Your task to perform on an android device: Clear the shopping cart on bestbuy.com. Add razer blade to the cart on bestbuy.com, then select checkout. Image 0: 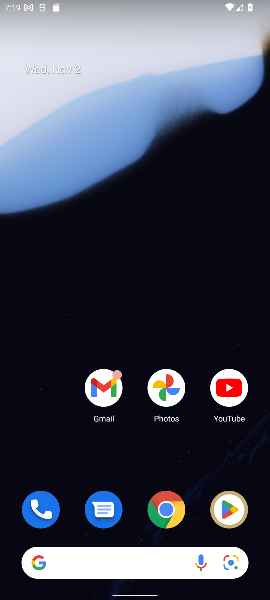
Step 0: click (123, 557)
Your task to perform on an android device: Clear the shopping cart on bestbuy.com. Add razer blade to the cart on bestbuy.com, then select checkout. Image 1: 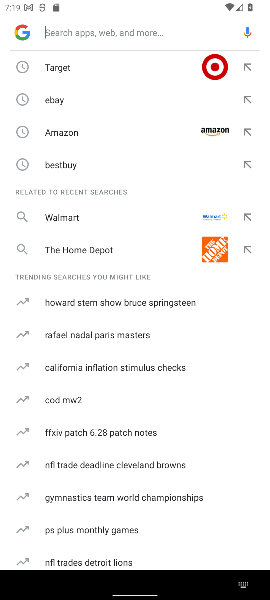
Step 1: type "bestbuy.com"
Your task to perform on an android device: Clear the shopping cart on bestbuy.com. Add razer blade to the cart on bestbuy.com, then select checkout. Image 2: 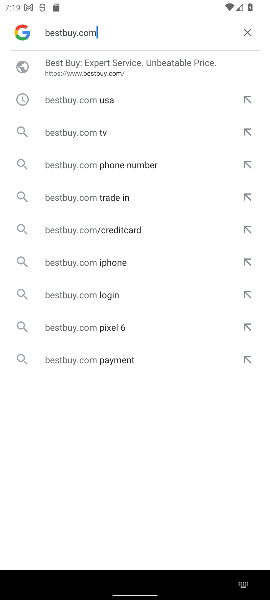
Step 2: click (79, 59)
Your task to perform on an android device: Clear the shopping cart on bestbuy.com. Add razer blade to the cart on bestbuy.com, then select checkout. Image 3: 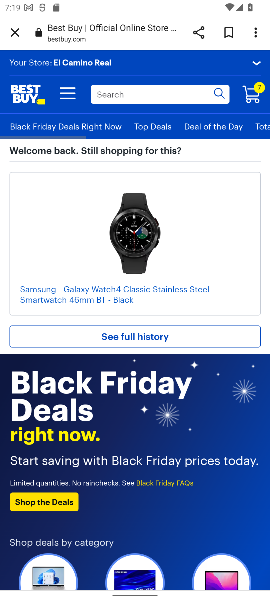
Step 3: click (260, 89)
Your task to perform on an android device: Clear the shopping cart on bestbuy.com. Add razer blade to the cart on bestbuy.com, then select checkout. Image 4: 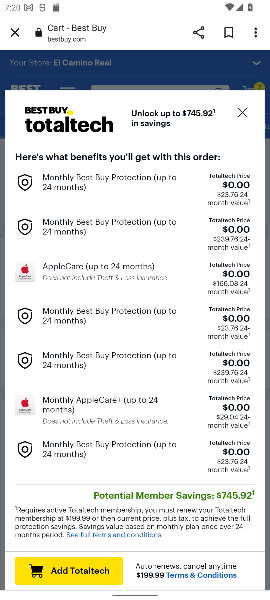
Step 4: click (242, 112)
Your task to perform on an android device: Clear the shopping cart on bestbuy.com. Add razer blade to the cart on bestbuy.com, then select checkout. Image 5: 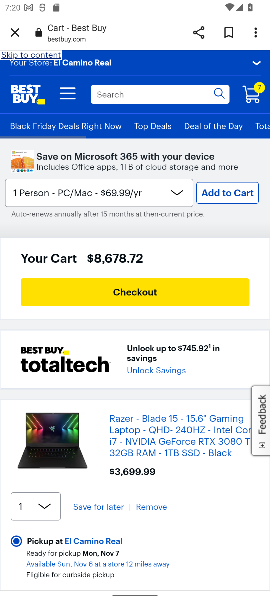
Step 5: click (145, 502)
Your task to perform on an android device: Clear the shopping cart on bestbuy.com. Add razer blade to the cart on bestbuy.com, then select checkout. Image 6: 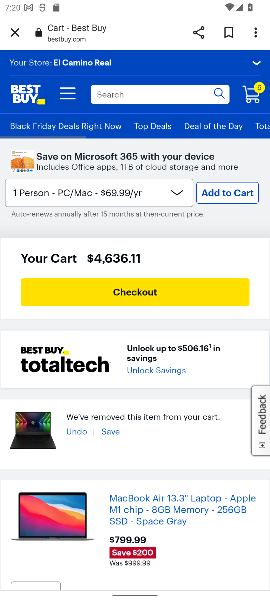
Step 6: drag from (222, 225) to (222, 337)
Your task to perform on an android device: Clear the shopping cart on bestbuy.com. Add razer blade to the cart on bestbuy.com, then select checkout. Image 7: 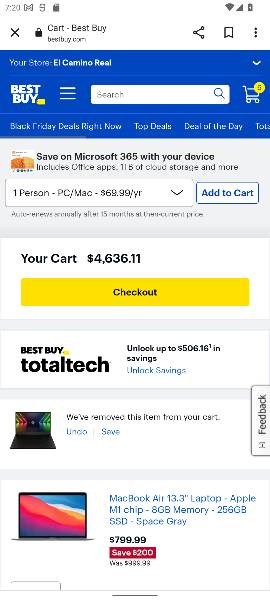
Step 7: drag from (203, 266) to (189, 173)
Your task to perform on an android device: Clear the shopping cart on bestbuy.com. Add razer blade to the cart on bestbuy.com, then select checkout. Image 8: 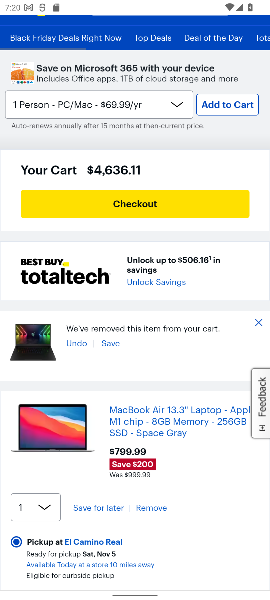
Step 8: click (152, 506)
Your task to perform on an android device: Clear the shopping cart on bestbuy.com. Add razer blade to the cart on bestbuy.com, then select checkout. Image 9: 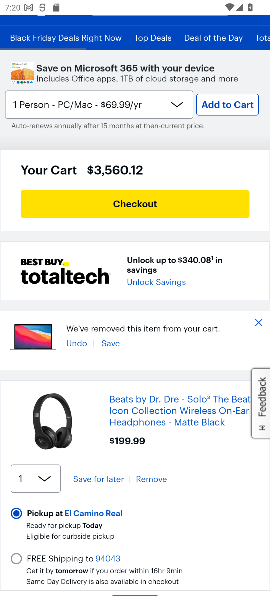
Step 9: click (153, 477)
Your task to perform on an android device: Clear the shopping cart on bestbuy.com. Add razer blade to the cart on bestbuy.com, then select checkout. Image 10: 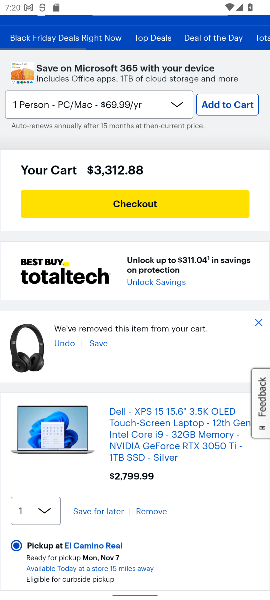
Step 10: click (149, 514)
Your task to perform on an android device: Clear the shopping cart on bestbuy.com. Add razer blade to the cart on bestbuy.com, then select checkout. Image 11: 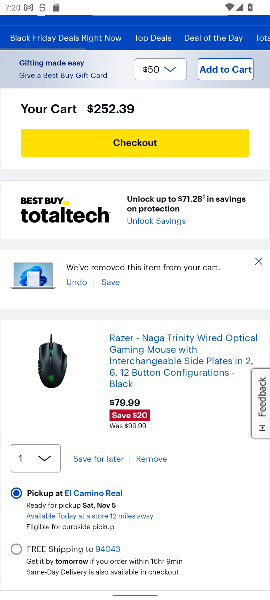
Step 11: click (141, 457)
Your task to perform on an android device: Clear the shopping cart on bestbuy.com. Add razer blade to the cart on bestbuy.com, then select checkout. Image 12: 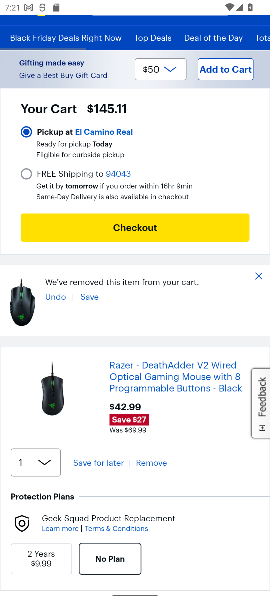
Step 12: click (158, 464)
Your task to perform on an android device: Clear the shopping cart on bestbuy.com. Add razer blade to the cart on bestbuy.com, then select checkout. Image 13: 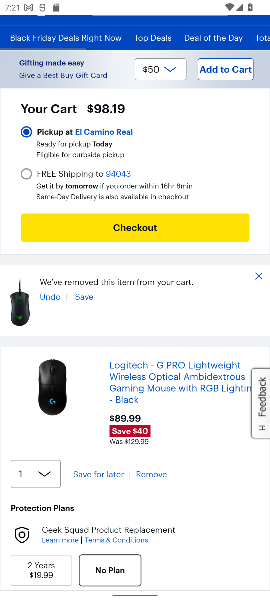
Step 13: click (151, 473)
Your task to perform on an android device: Clear the shopping cart on bestbuy.com. Add razer blade to the cart on bestbuy.com, then select checkout. Image 14: 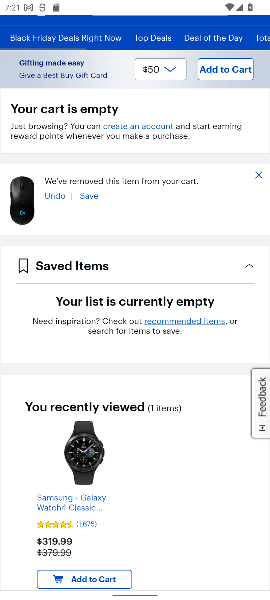
Step 14: drag from (171, 164) to (170, 450)
Your task to perform on an android device: Clear the shopping cart on bestbuy.com. Add razer blade to the cart on bestbuy.com, then select checkout. Image 15: 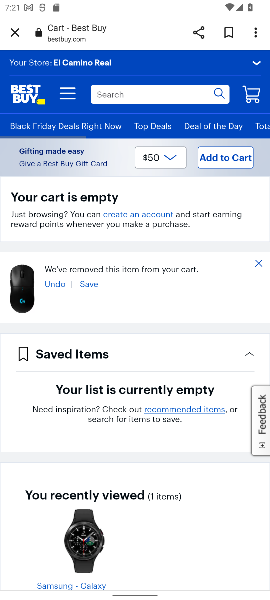
Step 15: click (121, 88)
Your task to perform on an android device: Clear the shopping cart on bestbuy.com. Add razer blade to the cart on bestbuy.com, then select checkout. Image 16: 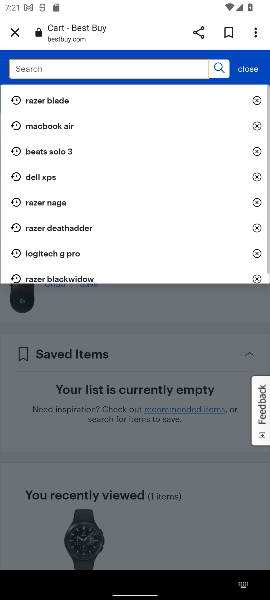
Step 16: click (77, 64)
Your task to perform on an android device: Clear the shopping cart on bestbuy.com. Add razer blade to the cart on bestbuy.com, then select checkout. Image 17: 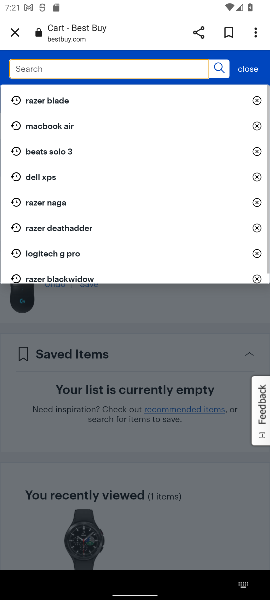
Step 17: type "razer blade"
Your task to perform on an android device: Clear the shopping cart on bestbuy.com. Add razer blade to the cart on bestbuy.com, then select checkout. Image 18: 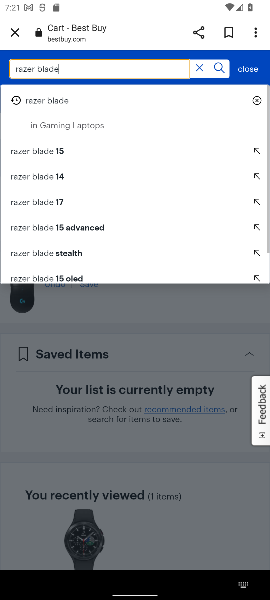
Step 18: click (54, 94)
Your task to perform on an android device: Clear the shopping cart on bestbuy.com. Add razer blade to the cart on bestbuy.com, then select checkout. Image 19: 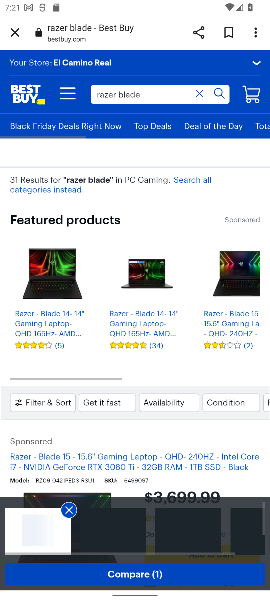
Step 19: drag from (219, 442) to (197, 325)
Your task to perform on an android device: Clear the shopping cart on bestbuy.com. Add razer blade to the cart on bestbuy.com, then select checkout. Image 20: 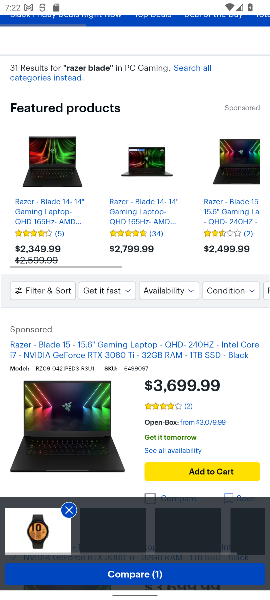
Step 20: click (211, 475)
Your task to perform on an android device: Clear the shopping cart on bestbuy.com. Add razer blade to the cart on bestbuy.com, then select checkout. Image 21: 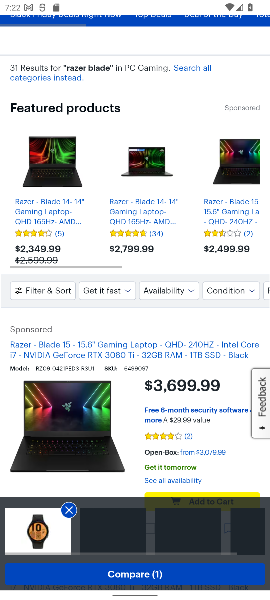
Step 21: drag from (240, 440) to (213, 278)
Your task to perform on an android device: Clear the shopping cart on bestbuy.com. Add razer blade to the cart on bestbuy.com, then select checkout. Image 22: 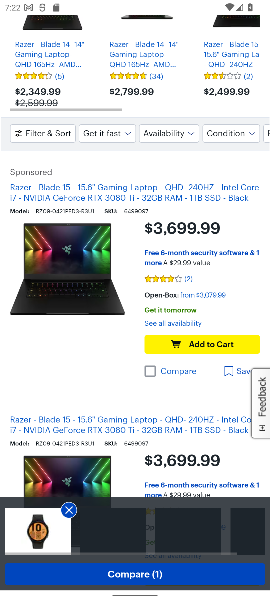
Step 22: click (190, 343)
Your task to perform on an android device: Clear the shopping cart on bestbuy.com. Add razer blade to the cart on bestbuy.com, then select checkout. Image 23: 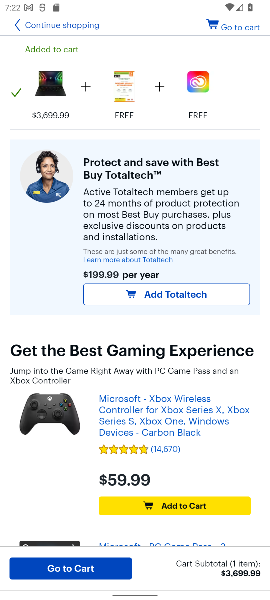
Step 23: click (67, 568)
Your task to perform on an android device: Clear the shopping cart on bestbuy.com. Add razer blade to the cart on bestbuy.com, then select checkout. Image 24: 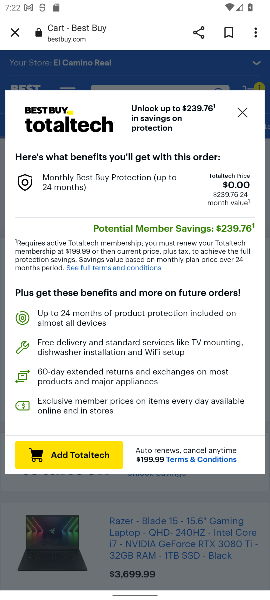
Step 24: click (245, 111)
Your task to perform on an android device: Clear the shopping cart on bestbuy.com. Add razer blade to the cart on bestbuy.com, then select checkout. Image 25: 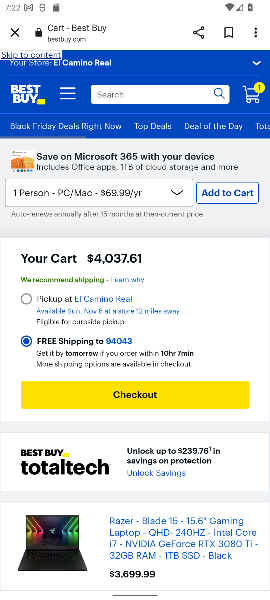
Step 25: click (136, 392)
Your task to perform on an android device: Clear the shopping cart on bestbuy.com. Add razer blade to the cart on bestbuy.com, then select checkout. Image 26: 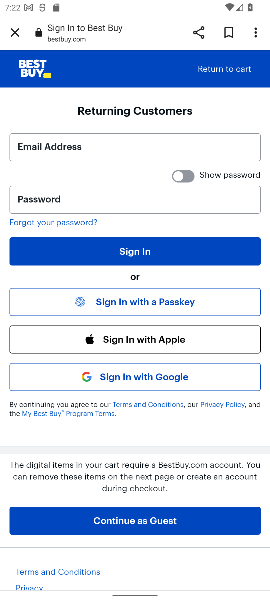
Step 26: task complete